Your task to perform on an android device: clear all cookies in the chrome app Image 0: 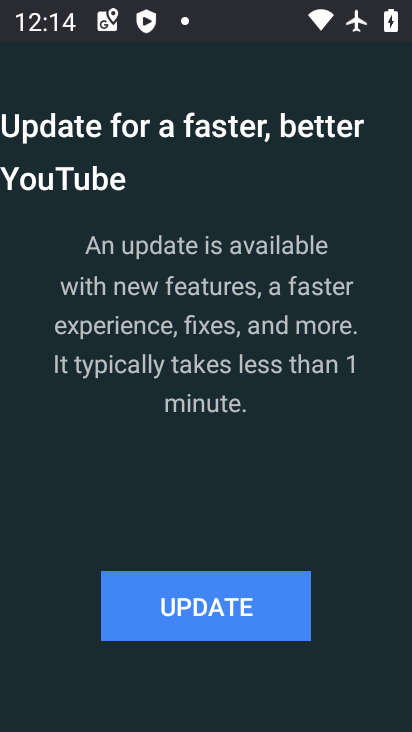
Step 0: press home button
Your task to perform on an android device: clear all cookies in the chrome app Image 1: 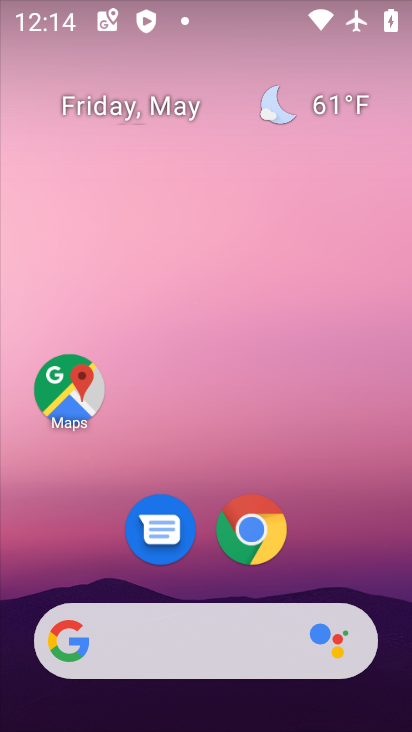
Step 1: drag from (350, 505) to (297, 130)
Your task to perform on an android device: clear all cookies in the chrome app Image 2: 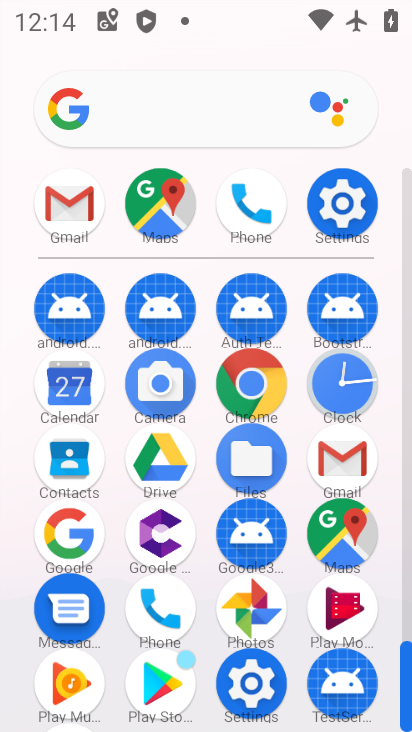
Step 2: click (257, 390)
Your task to perform on an android device: clear all cookies in the chrome app Image 3: 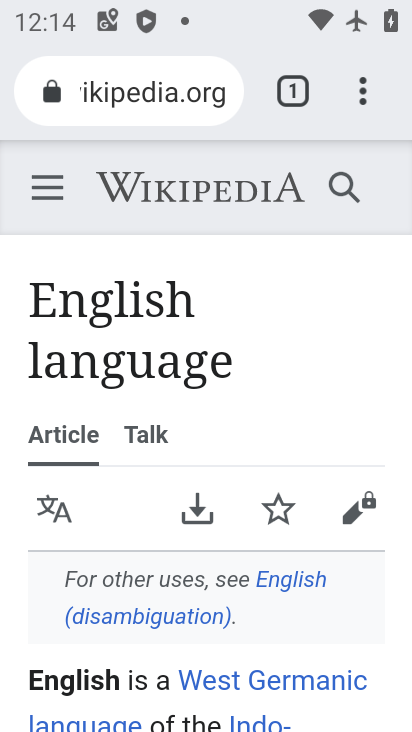
Step 3: click (359, 91)
Your task to perform on an android device: clear all cookies in the chrome app Image 4: 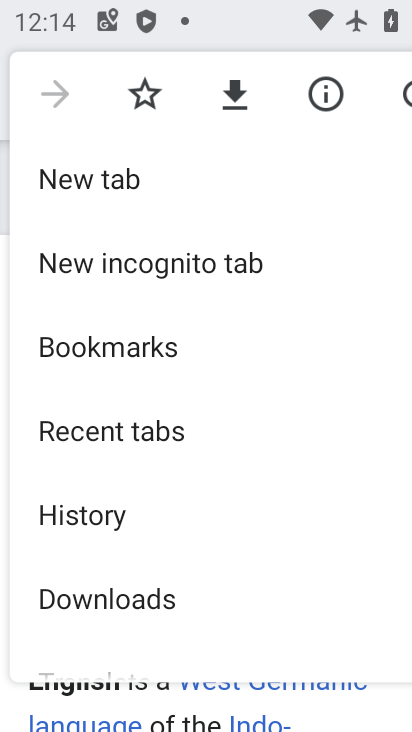
Step 4: drag from (247, 587) to (266, 317)
Your task to perform on an android device: clear all cookies in the chrome app Image 5: 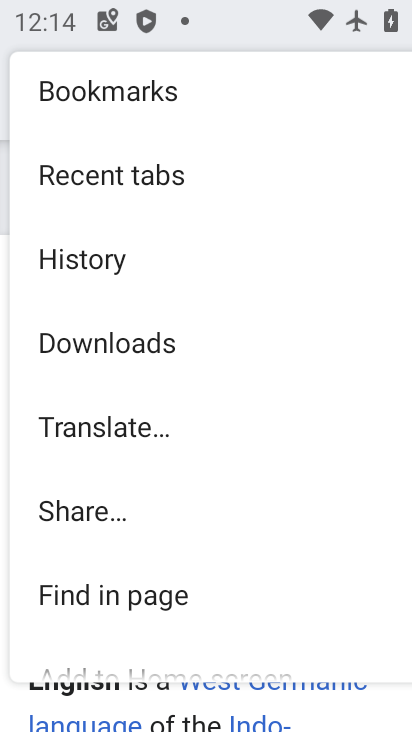
Step 5: drag from (193, 551) to (207, 235)
Your task to perform on an android device: clear all cookies in the chrome app Image 6: 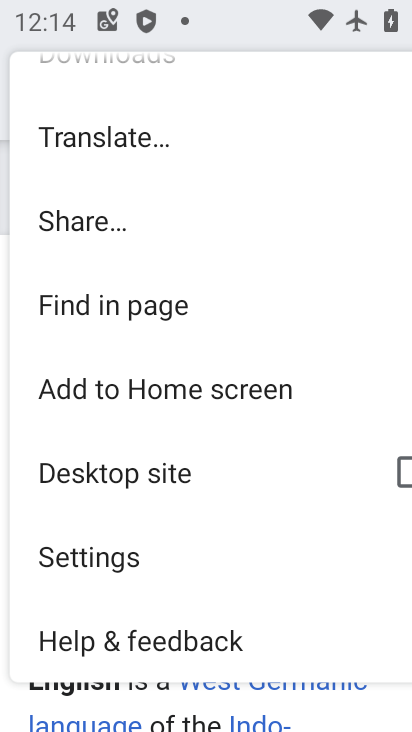
Step 6: click (175, 543)
Your task to perform on an android device: clear all cookies in the chrome app Image 7: 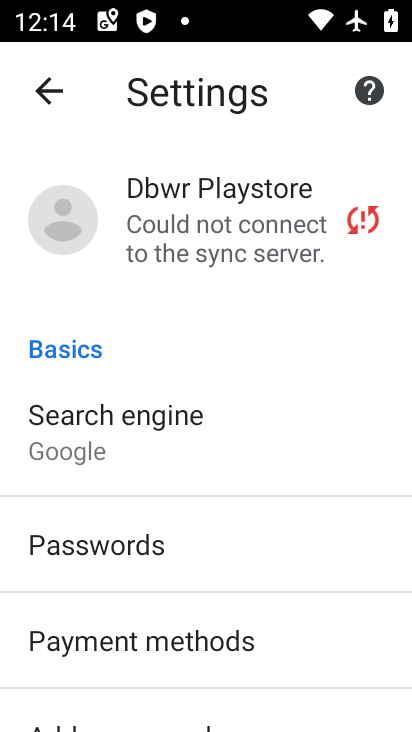
Step 7: drag from (164, 680) to (202, 258)
Your task to perform on an android device: clear all cookies in the chrome app Image 8: 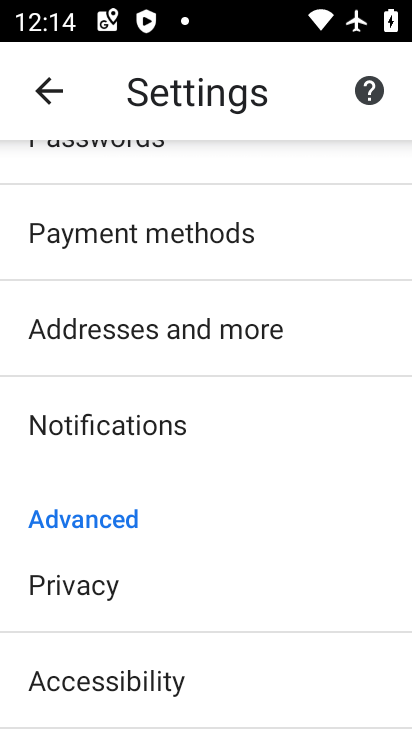
Step 8: drag from (182, 599) to (213, 245)
Your task to perform on an android device: clear all cookies in the chrome app Image 9: 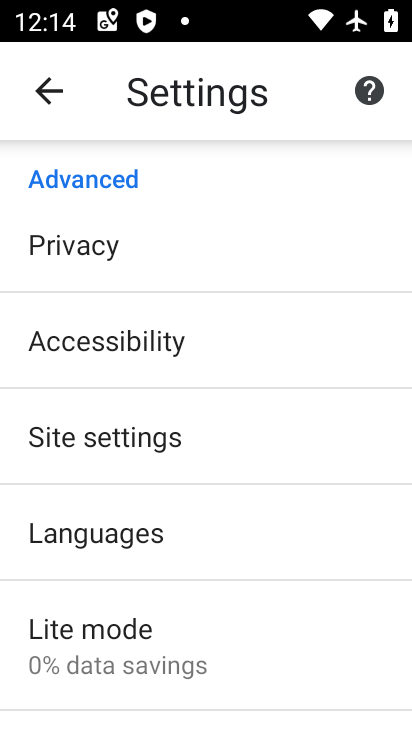
Step 9: click (197, 454)
Your task to perform on an android device: clear all cookies in the chrome app Image 10: 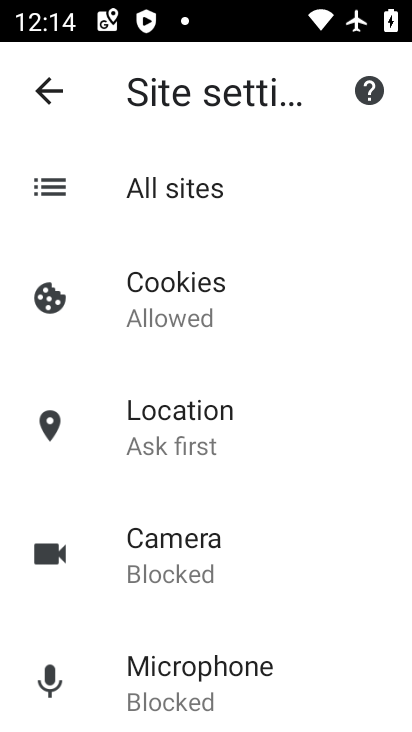
Step 10: click (200, 259)
Your task to perform on an android device: clear all cookies in the chrome app Image 11: 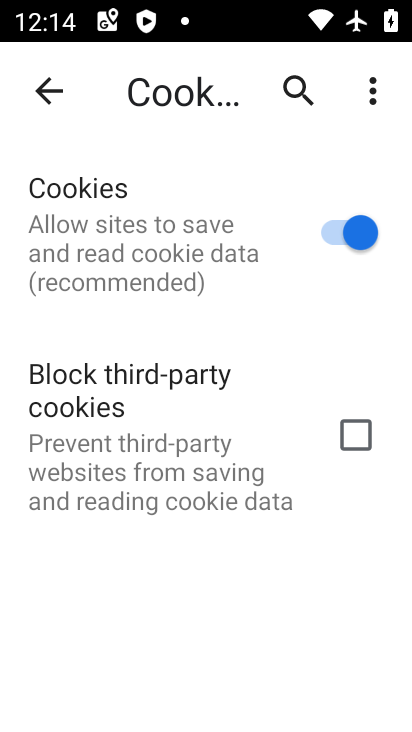
Step 11: task complete